Your task to perform on an android device: When is my next meeting? Image 0: 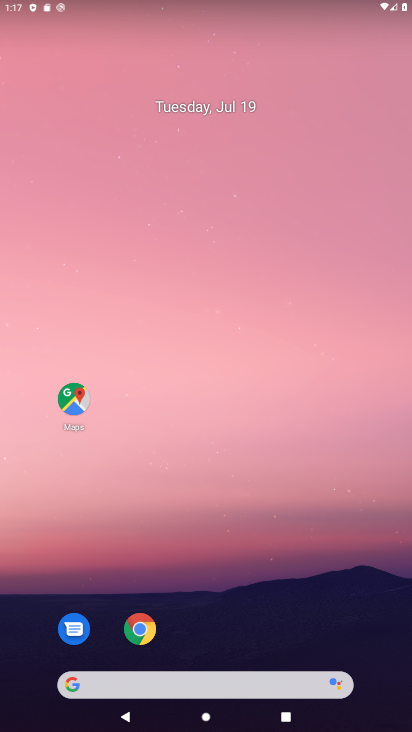
Step 0: drag from (197, 683) to (164, 154)
Your task to perform on an android device: When is my next meeting? Image 1: 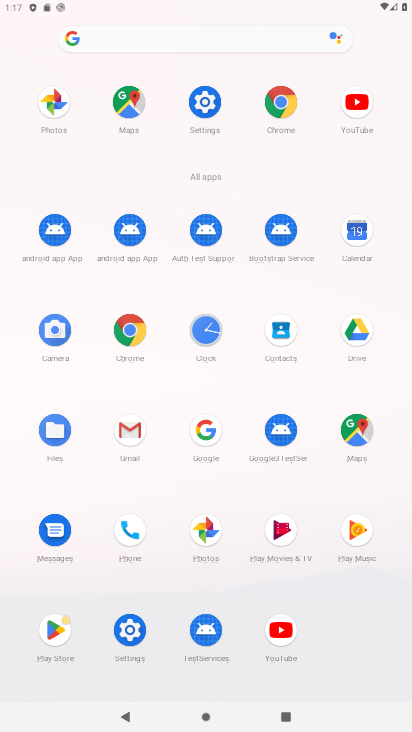
Step 1: click (364, 222)
Your task to perform on an android device: When is my next meeting? Image 2: 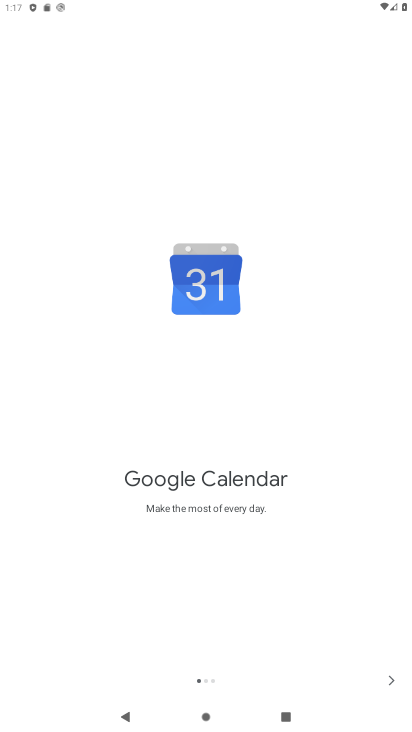
Step 2: click (383, 678)
Your task to perform on an android device: When is my next meeting? Image 3: 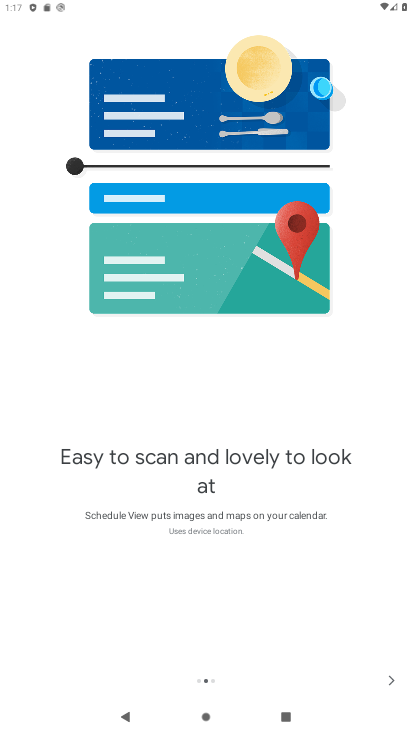
Step 3: click (383, 678)
Your task to perform on an android device: When is my next meeting? Image 4: 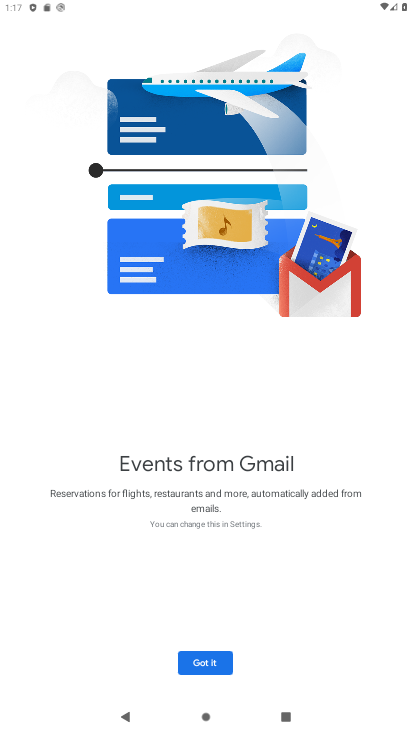
Step 4: click (383, 678)
Your task to perform on an android device: When is my next meeting? Image 5: 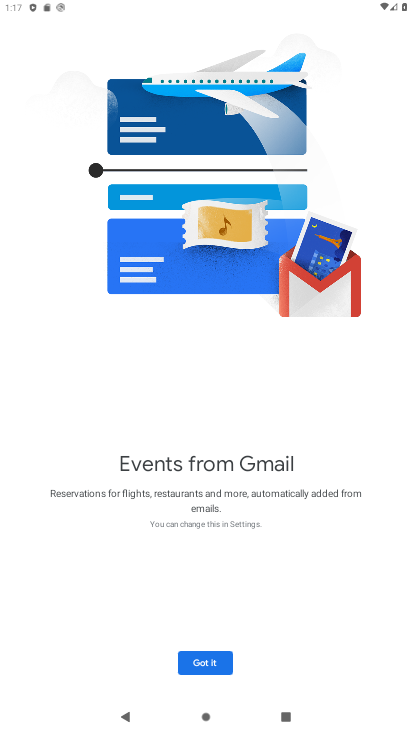
Step 5: click (228, 664)
Your task to perform on an android device: When is my next meeting? Image 6: 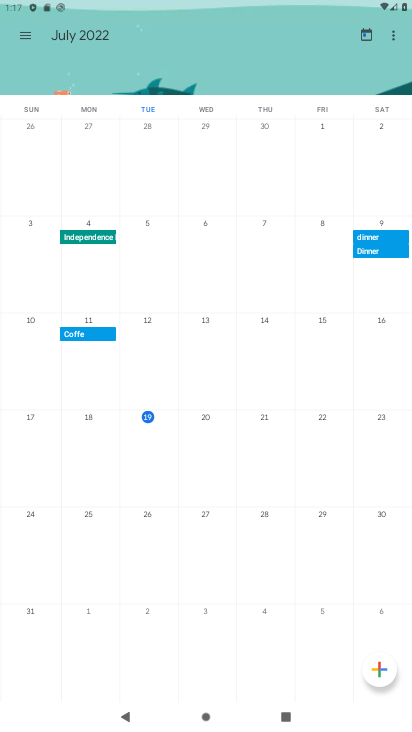
Step 6: click (25, 44)
Your task to perform on an android device: When is my next meeting? Image 7: 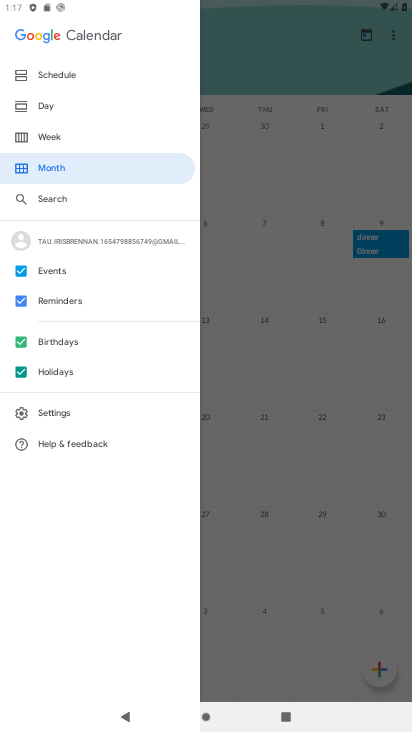
Step 7: click (72, 73)
Your task to perform on an android device: When is my next meeting? Image 8: 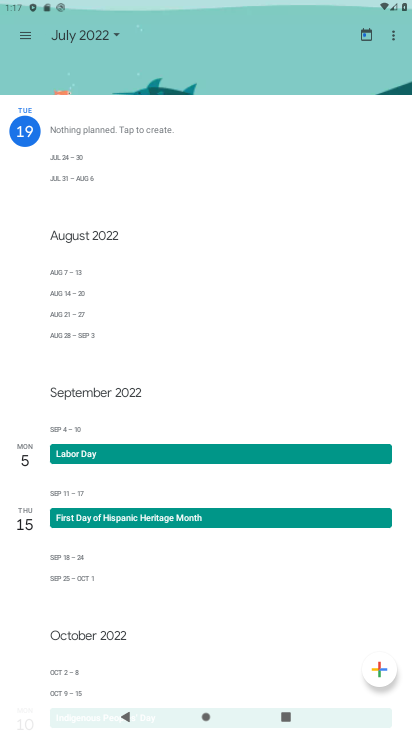
Step 8: task complete